Your task to perform on an android device: Open display settings Image 0: 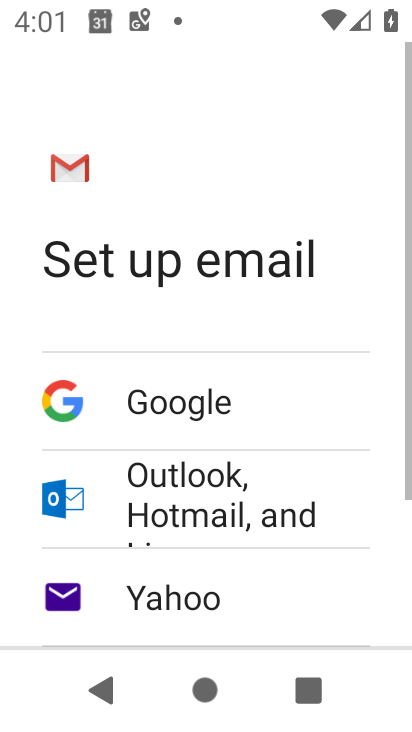
Step 0: press home button
Your task to perform on an android device: Open display settings Image 1: 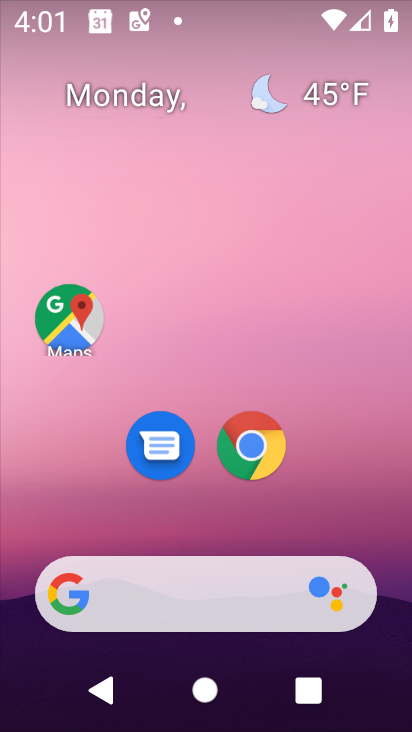
Step 1: drag from (292, 528) to (298, 132)
Your task to perform on an android device: Open display settings Image 2: 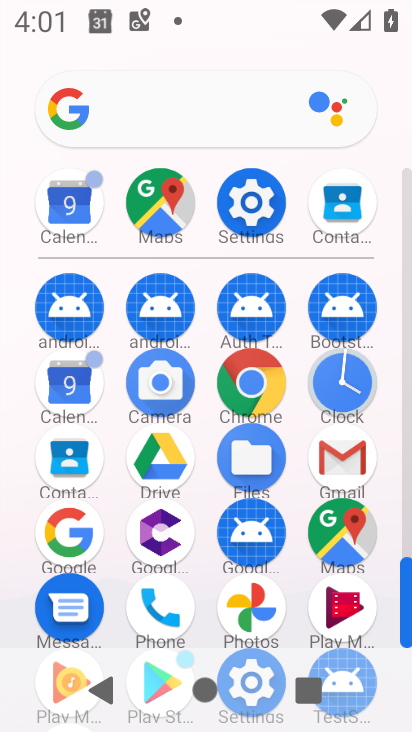
Step 2: click (254, 217)
Your task to perform on an android device: Open display settings Image 3: 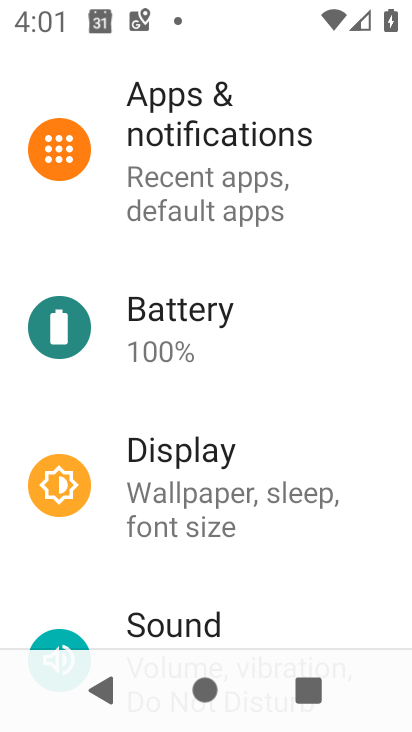
Step 3: click (188, 491)
Your task to perform on an android device: Open display settings Image 4: 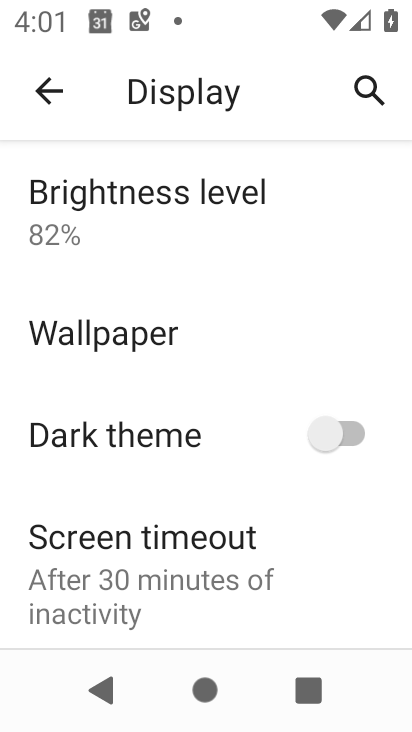
Step 4: task complete